Your task to perform on an android device: Open Google Image 0: 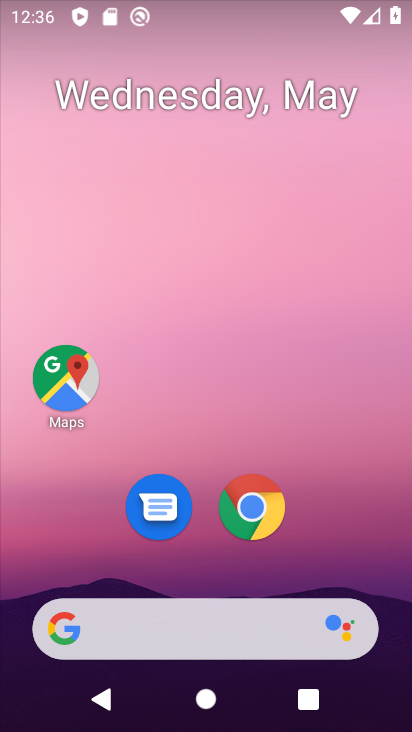
Step 0: click (252, 509)
Your task to perform on an android device: Open Google Image 1: 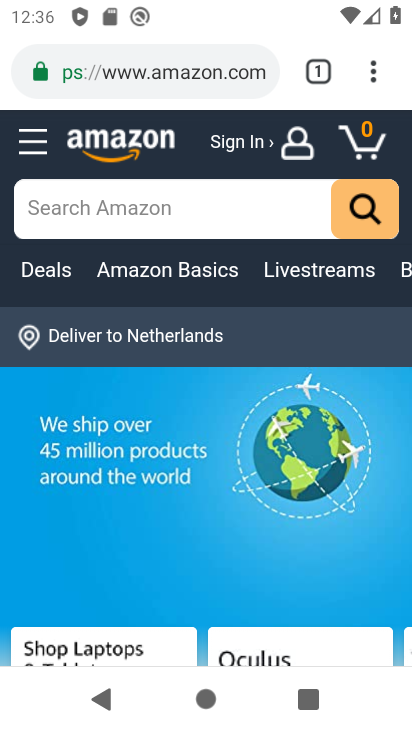
Step 1: task complete